Your task to perform on an android device: open a bookmark in the chrome app Image 0: 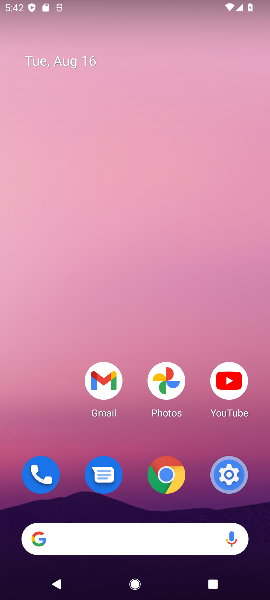
Step 0: drag from (204, 494) to (83, 40)
Your task to perform on an android device: open a bookmark in the chrome app Image 1: 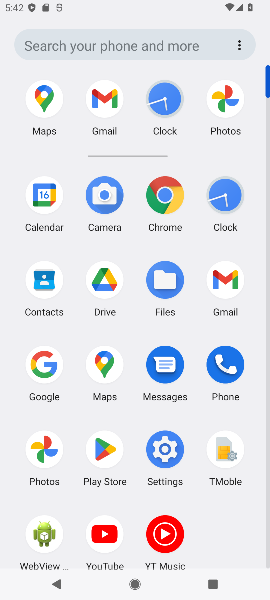
Step 1: click (165, 192)
Your task to perform on an android device: open a bookmark in the chrome app Image 2: 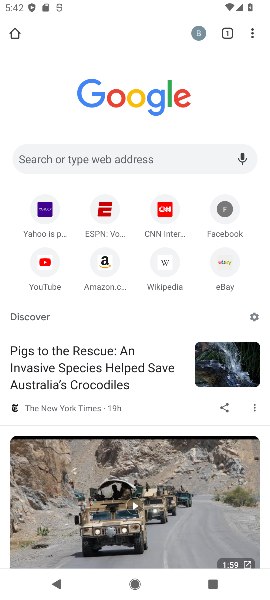
Step 2: click (251, 29)
Your task to perform on an android device: open a bookmark in the chrome app Image 3: 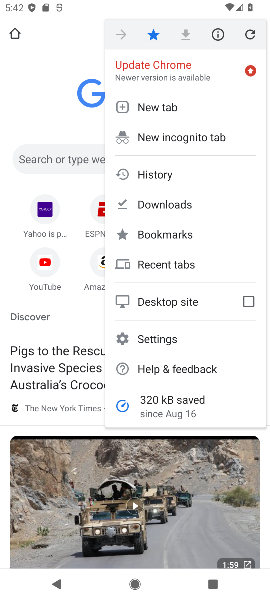
Step 3: click (162, 238)
Your task to perform on an android device: open a bookmark in the chrome app Image 4: 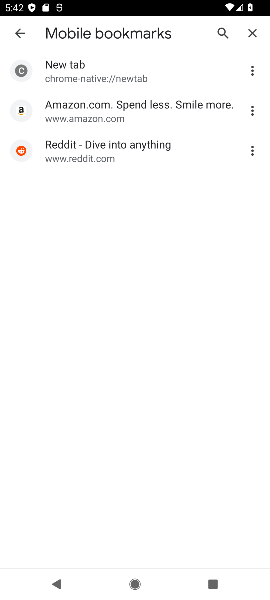
Step 4: task complete